Your task to perform on an android device: turn off smart reply in the gmail app Image 0: 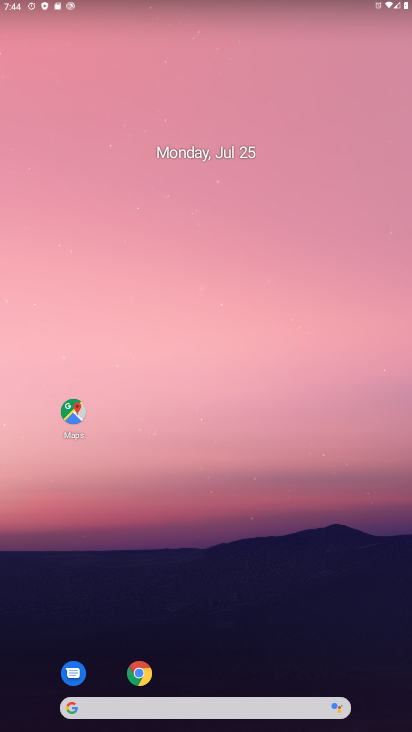
Step 0: drag from (343, 652) to (136, 13)
Your task to perform on an android device: turn off smart reply in the gmail app Image 1: 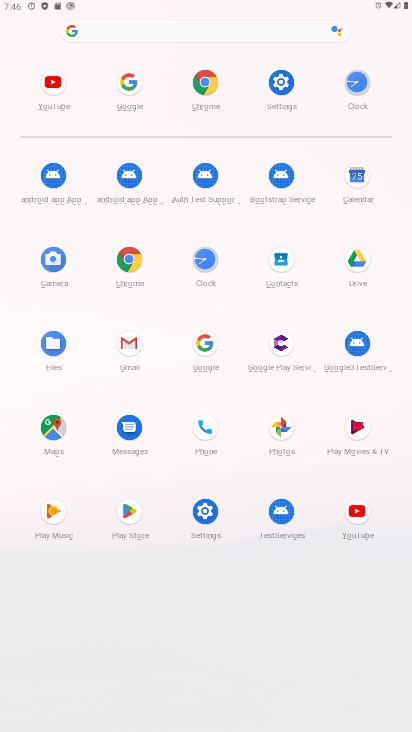
Step 1: click (129, 352)
Your task to perform on an android device: turn off smart reply in the gmail app Image 2: 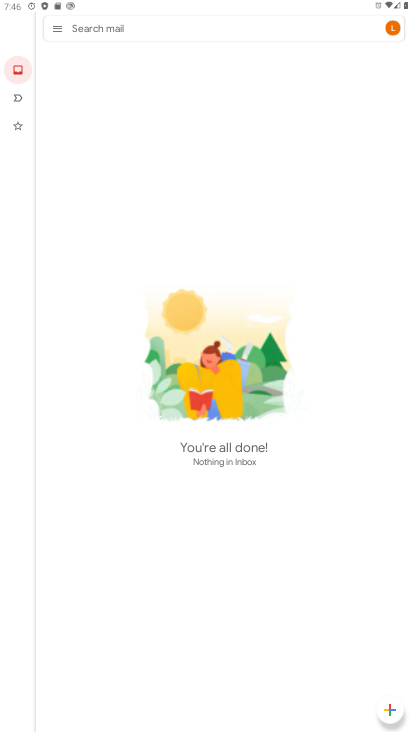
Step 2: click (55, 25)
Your task to perform on an android device: turn off smart reply in the gmail app Image 3: 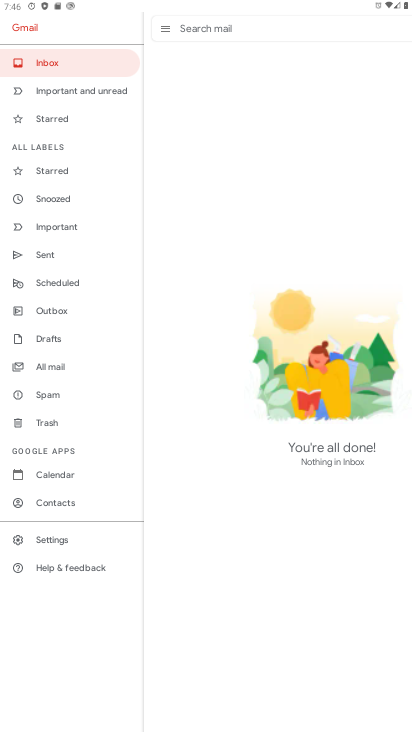
Step 3: click (57, 534)
Your task to perform on an android device: turn off smart reply in the gmail app Image 4: 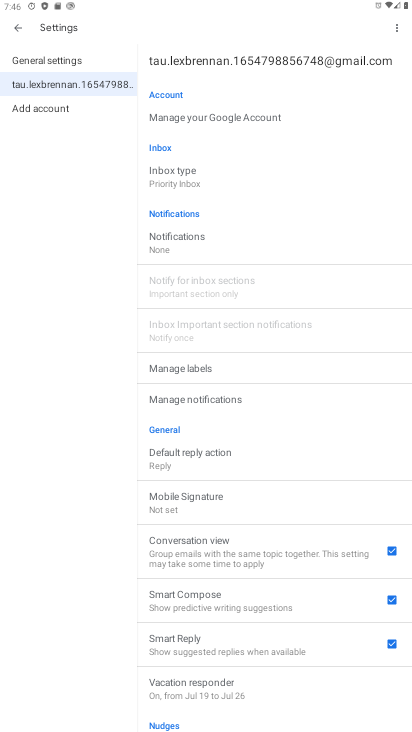
Step 4: click (275, 633)
Your task to perform on an android device: turn off smart reply in the gmail app Image 5: 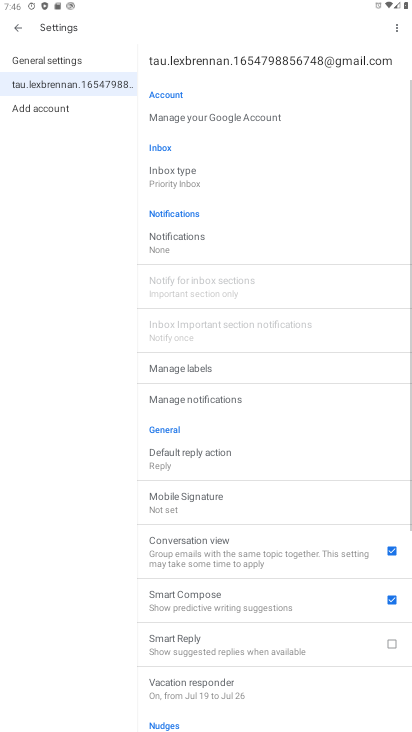
Step 5: task complete